Your task to perform on an android device: turn on the 24-hour format for clock Image 0: 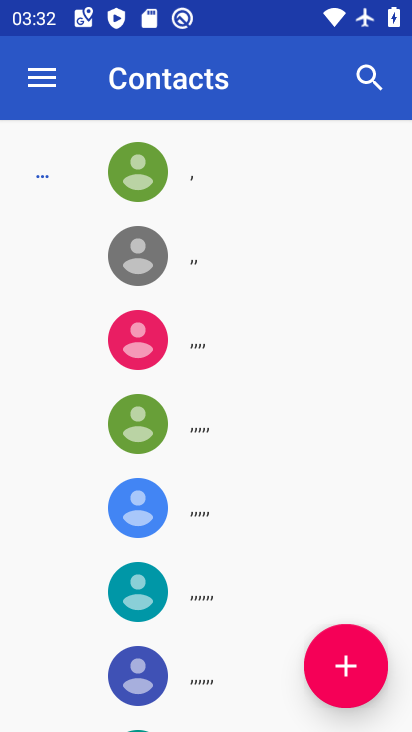
Step 0: press home button
Your task to perform on an android device: turn on the 24-hour format for clock Image 1: 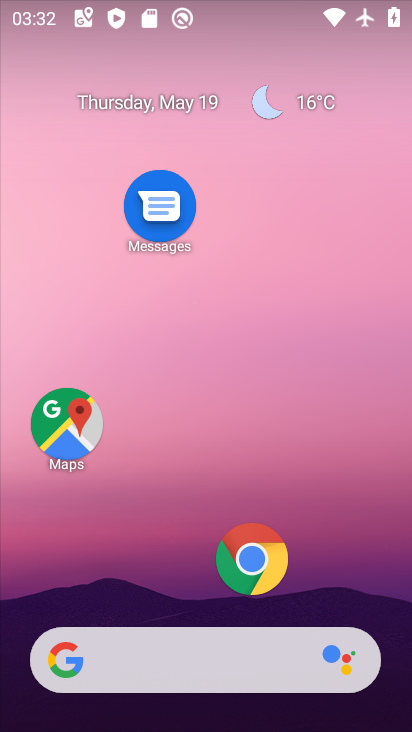
Step 1: drag from (192, 586) to (224, 306)
Your task to perform on an android device: turn on the 24-hour format for clock Image 2: 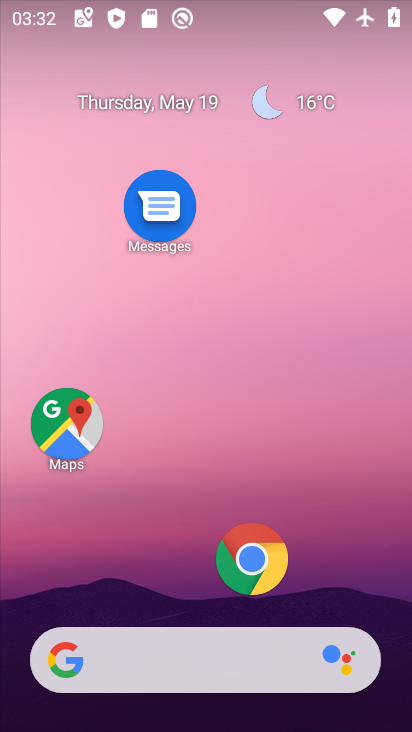
Step 2: drag from (172, 604) to (194, 232)
Your task to perform on an android device: turn on the 24-hour format for clock Image 3: 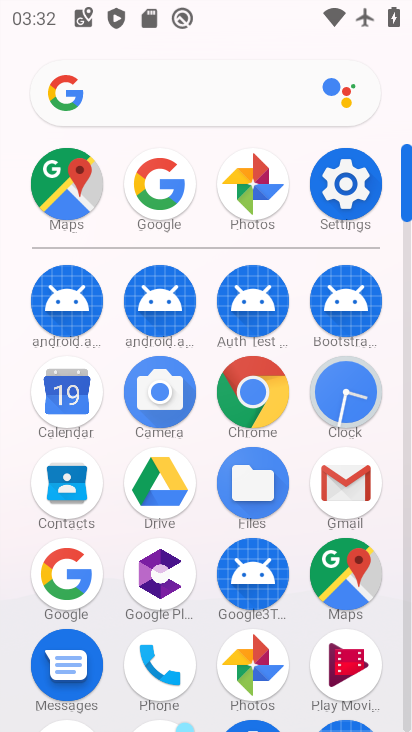
Step 3: click (350, 413)
Your task to perform on an android device: turn on the 24-hour format for clock Image 4: 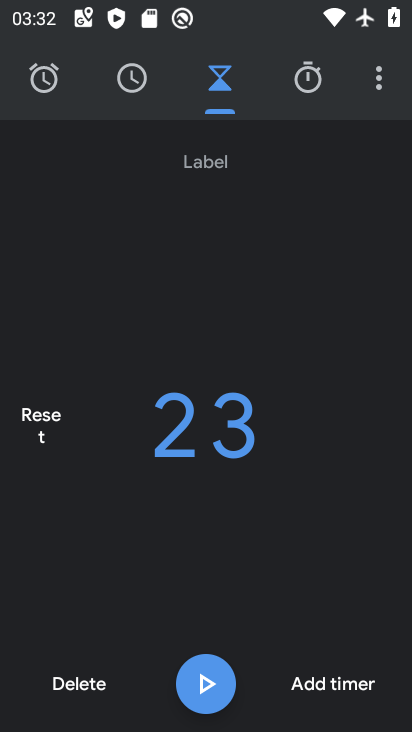
Step 4: click (373, 91)
Your task to perform on an android device: turn on the 24-hour format for clock Image 5: 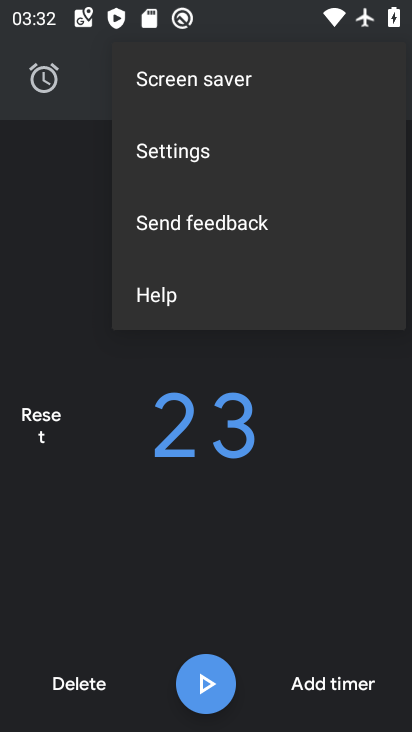
Step 5: click (243, 156)
Your task to perform on an android device: turn on the 24-hour format for clock Image 6: 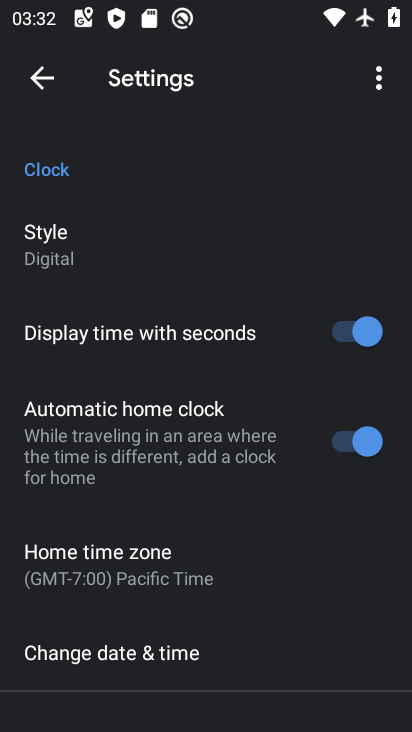
Step 6: click (189, 641)
Your task to perform on an android device: turn on the 24-hour format for clock Image 7: 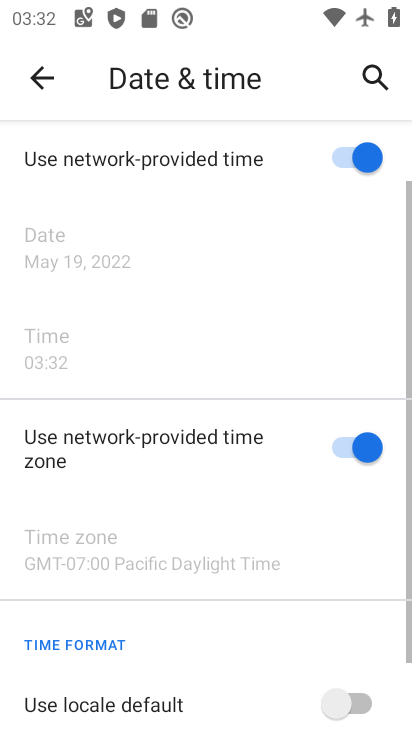
Step 7: task complete